Your task to perform on an android device: open app "Messages" (install if not already installed) and go to login screen Image 0: 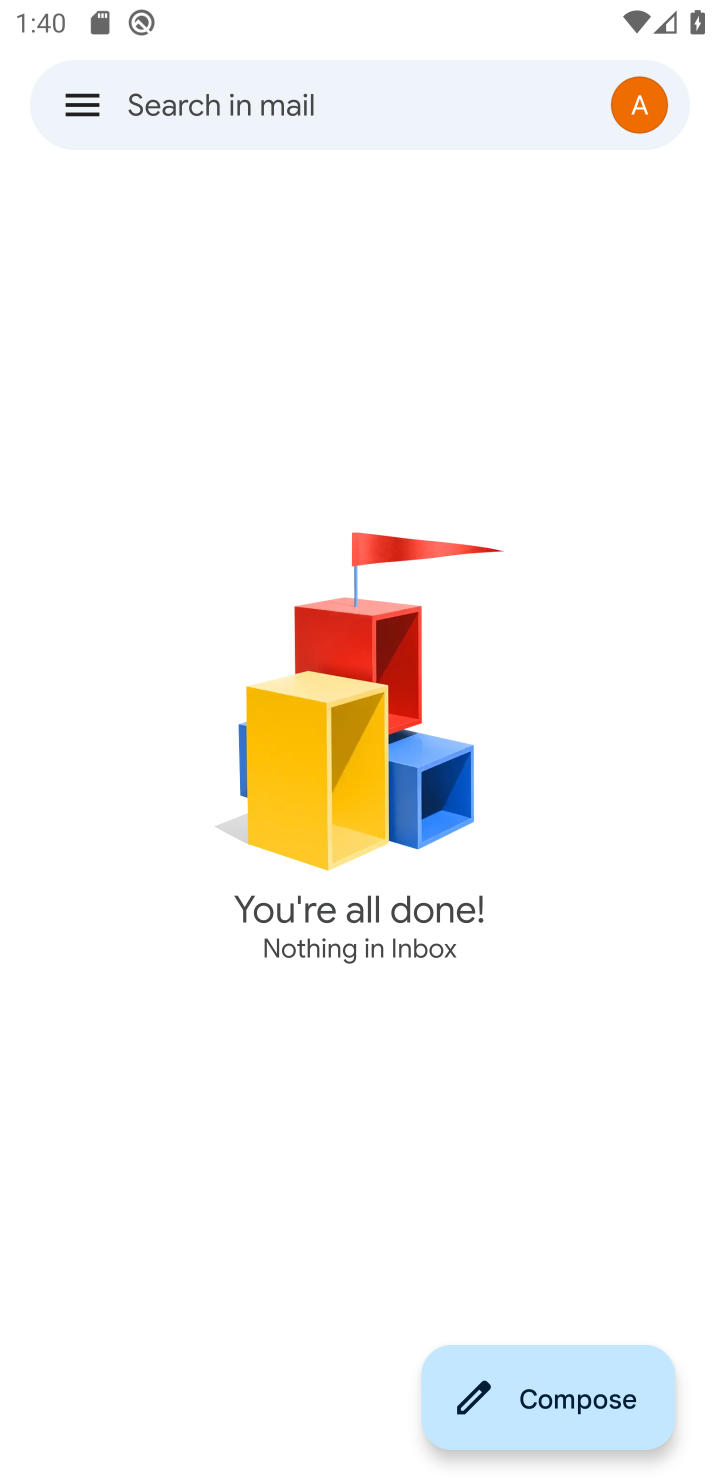
Step 0: press home button
Your task to perform on an android device: open app "Messages" (install if not already installed) and go to login screen Image 1: 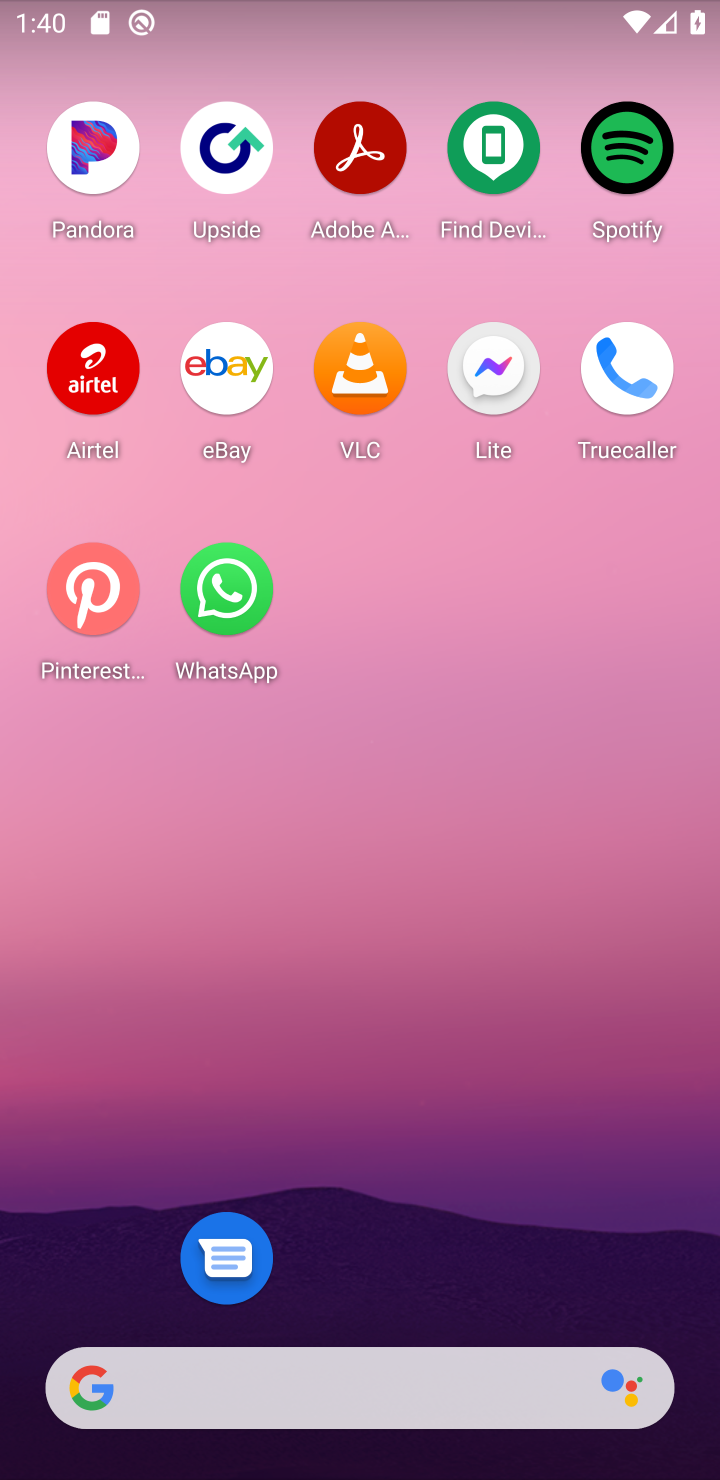
Step 1: drag from (409, 1317) to (412, 572)
Your task to perform on an android device: open app "Messages" (install if not already installed) and go to login screen Image 2: 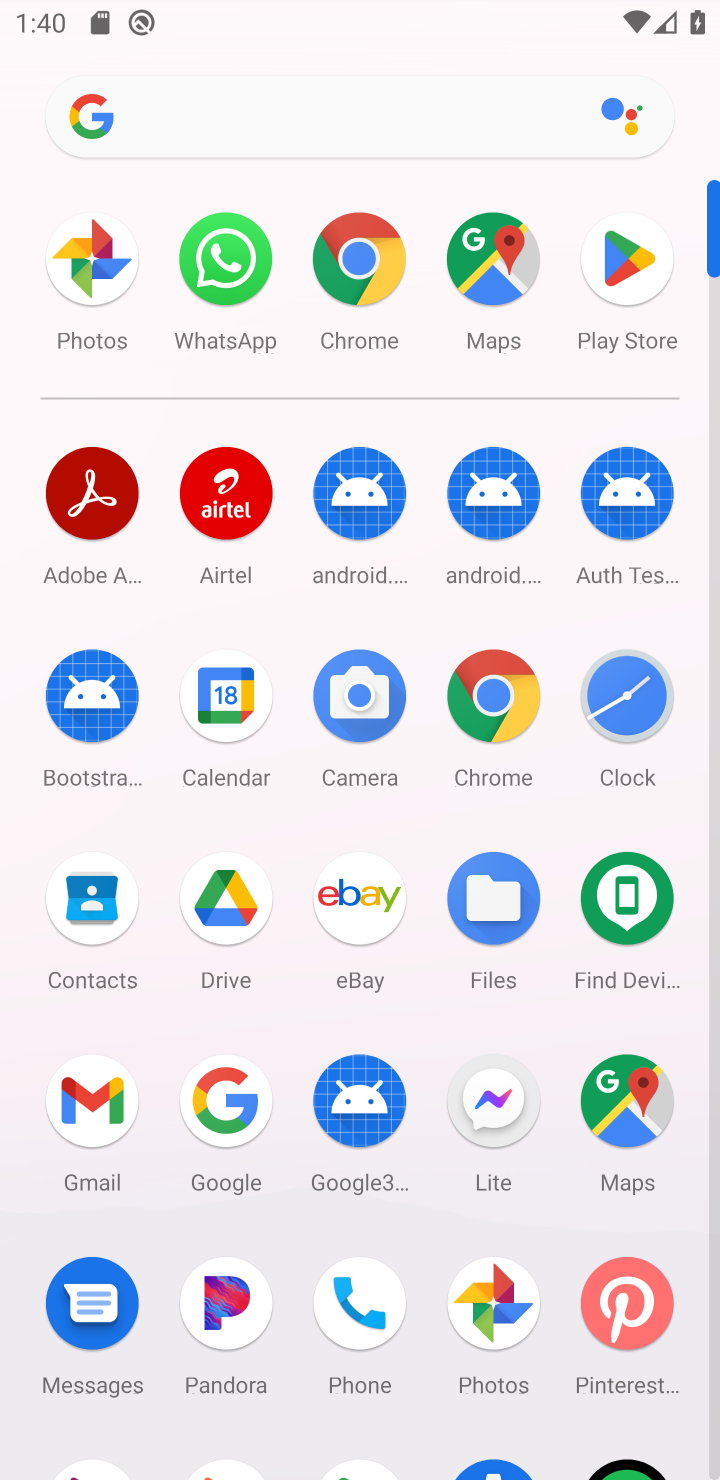
Step 2: click (633, 276)
Your task to perform on an android device: open app "Messages" (install if not already installed) and go to login screen Image 3: 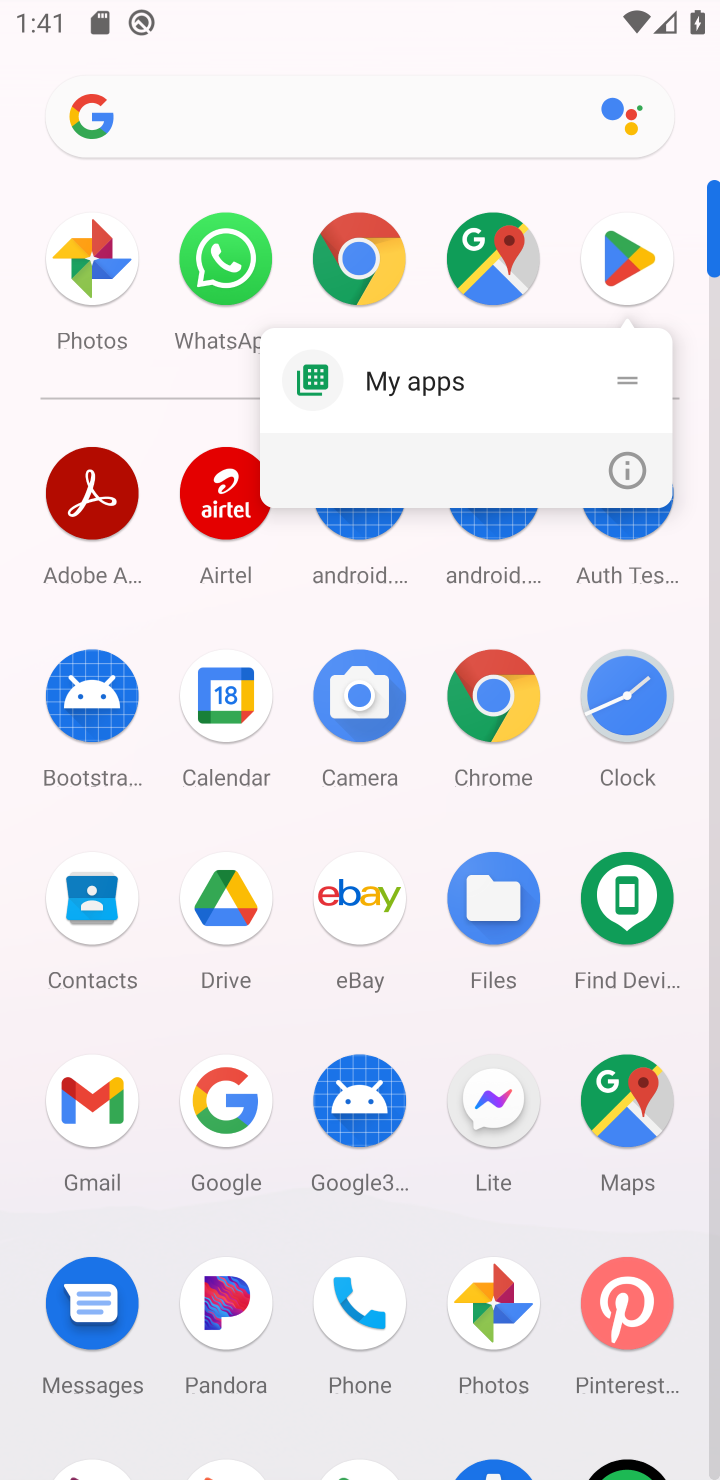
Step 3: click (625, 255)
Your task to perform on an android device: open app "Messages" (install if not already installed) and go to login screen Image 4: 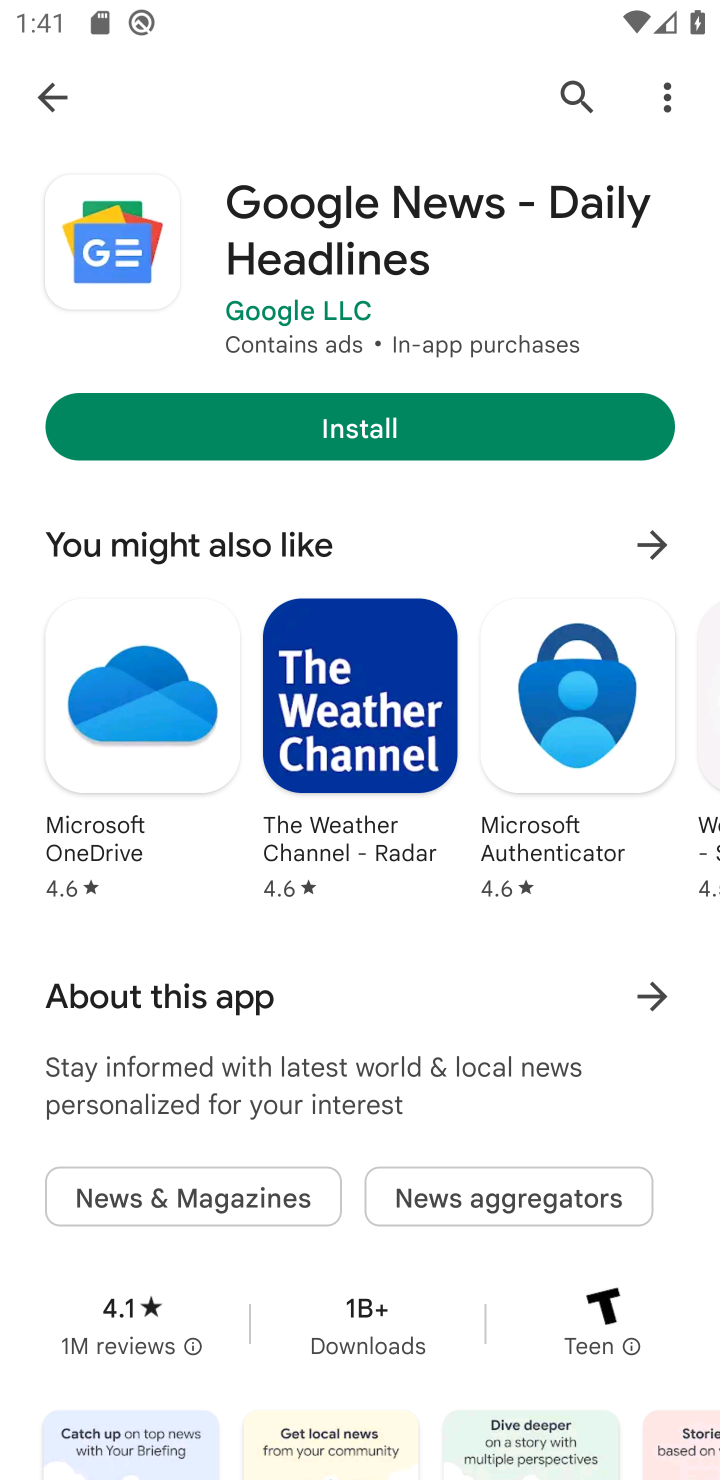
Step 4: click (54, 94)
Your task to perform on an android device: open app "Messages" (install if not already installed) and go to login screen Image 5: 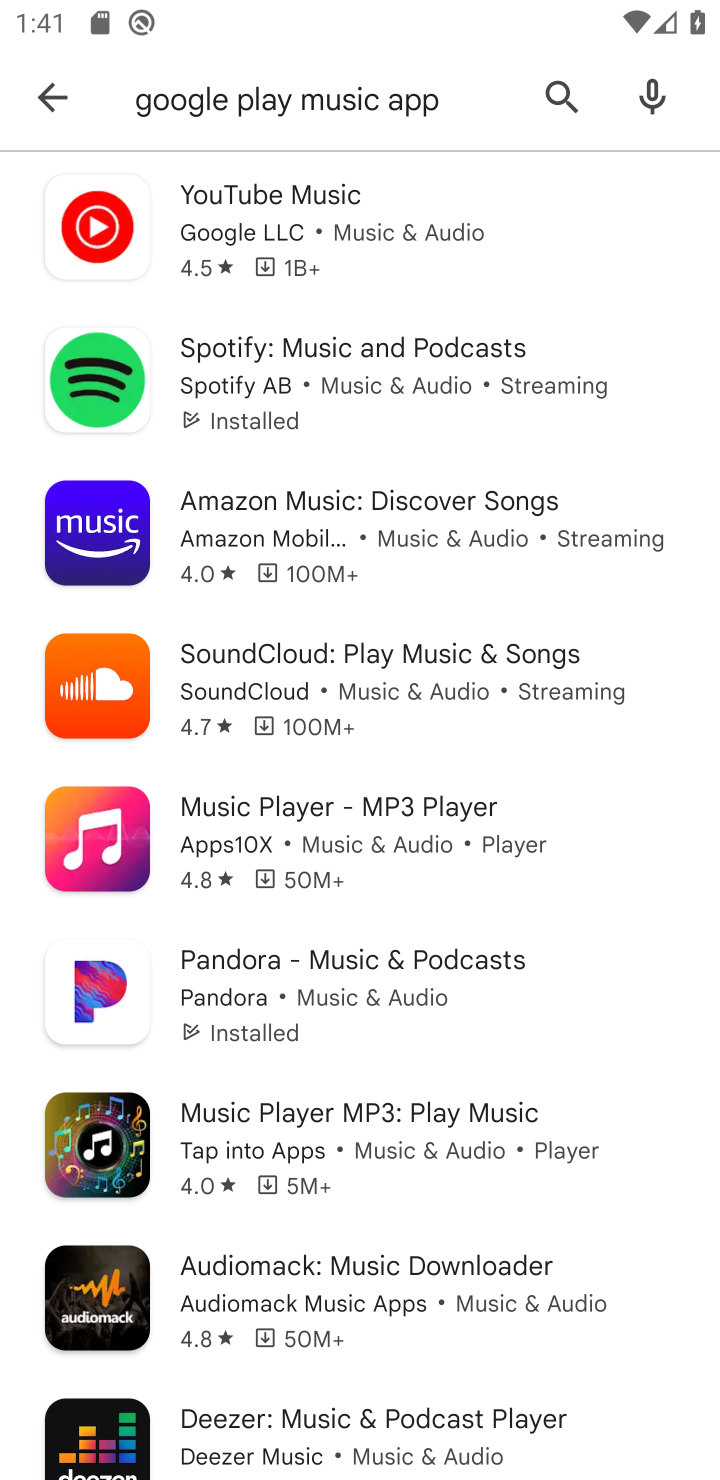
Step 5: click (547, 100)
Your task to perform on an android device: open app "Messages" (install if not already installed) and go to login screen Image 6: 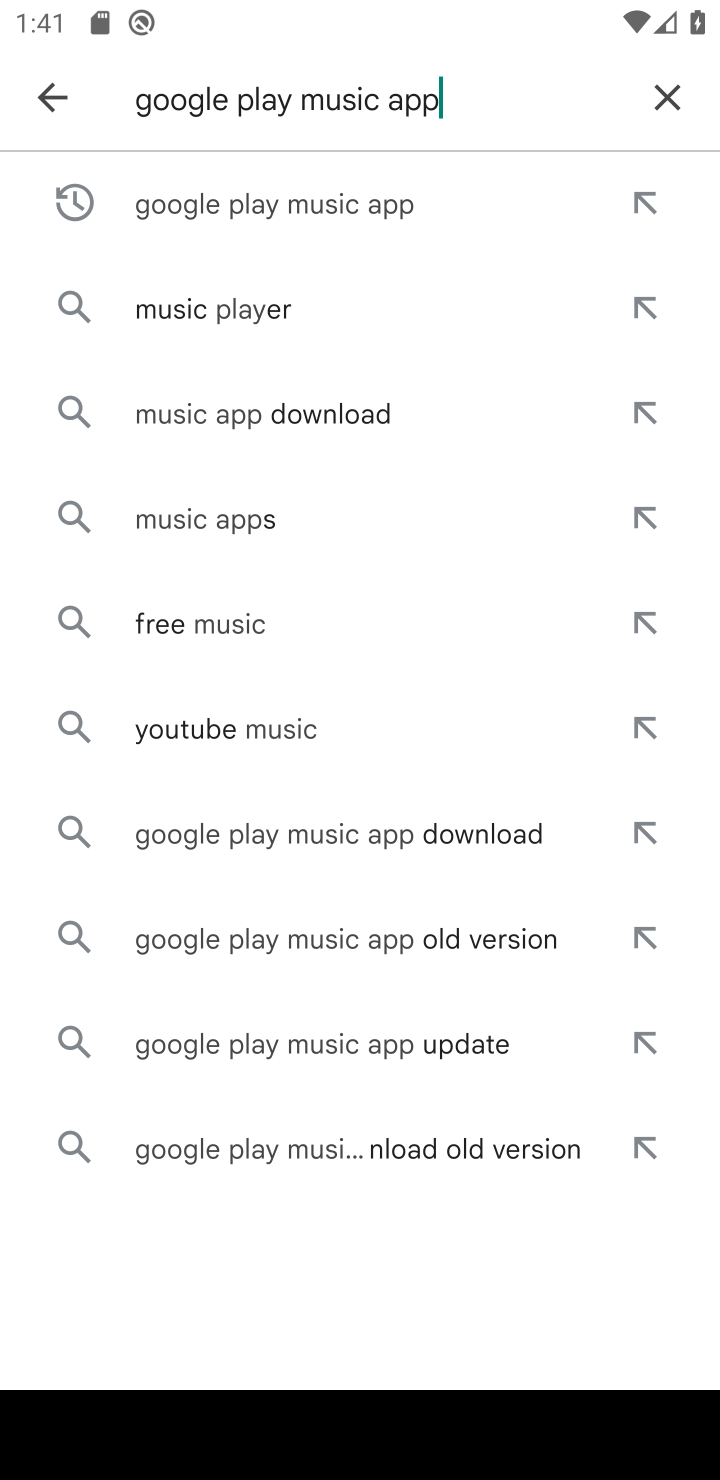
Step 6: click (618, 85)
Your task to perform on an android device: open app "Messages" (install if not already installed) and go to login screen Image 7: 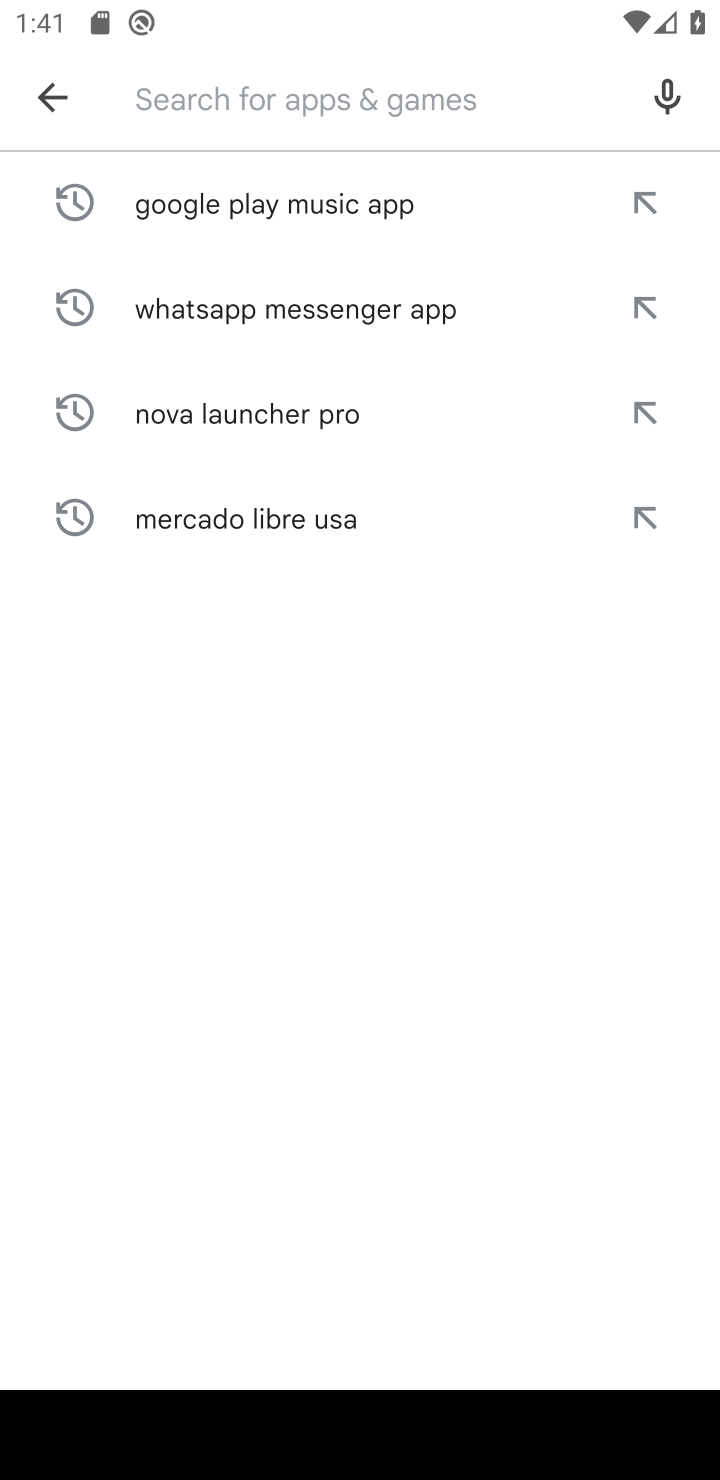
Step 7: click (267, 96)
Your task to perform on an android device: open app "Messages" (install if not already installed) and go to login screen Image 8: 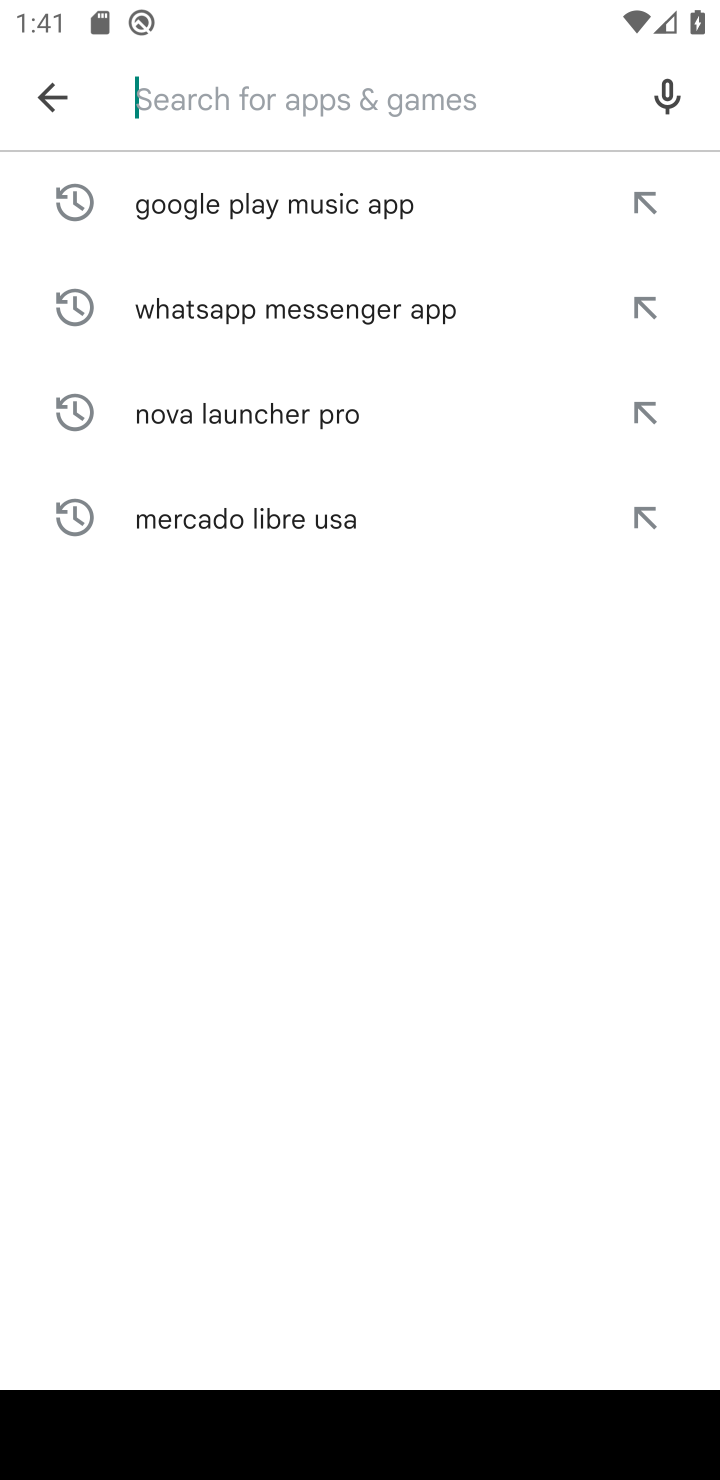
Step 8: type "Messages "
Your task to perform on an android device: open app "Messages" (install if not already installed) and go to login screen Image 9: 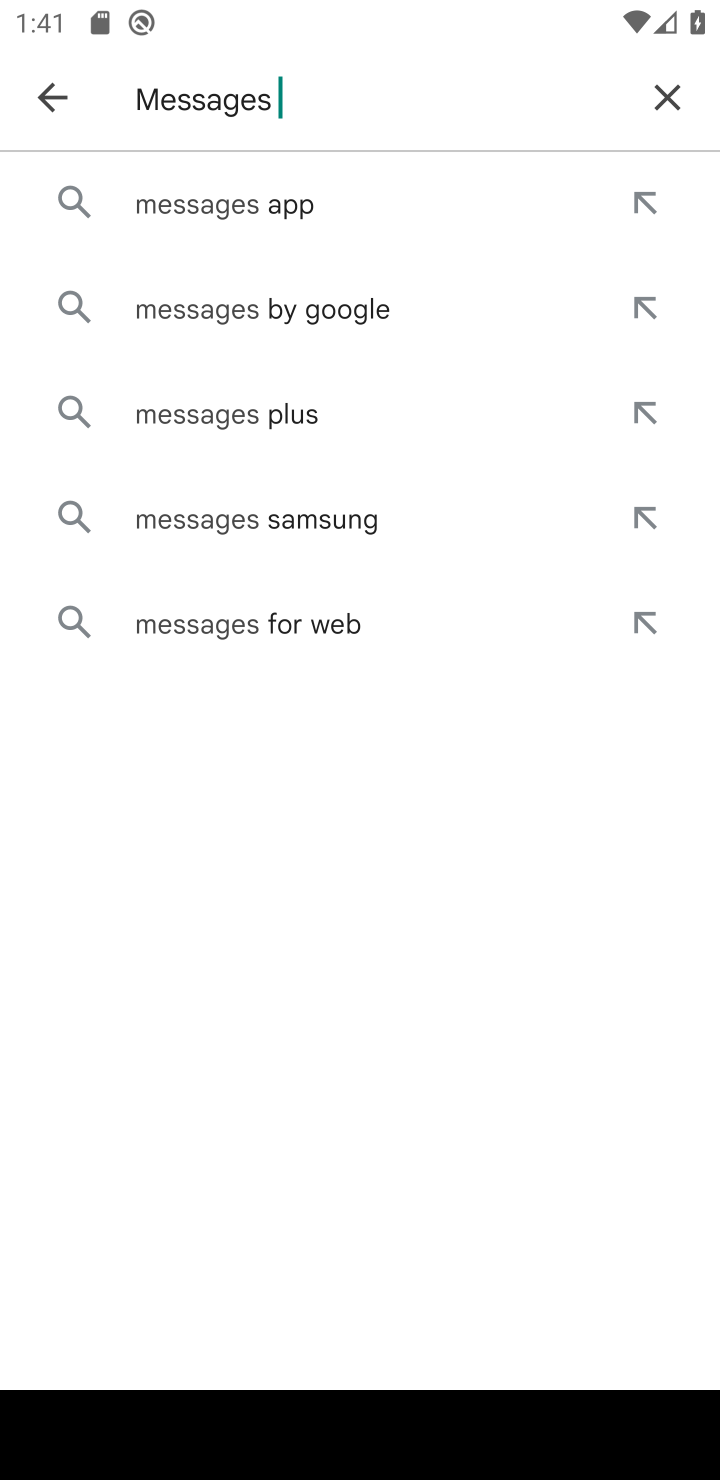
Step 9: click (172, 222)
Your task to perform on an android device: open app "Messages" (install if not already installed) and go to login screen Image 10: 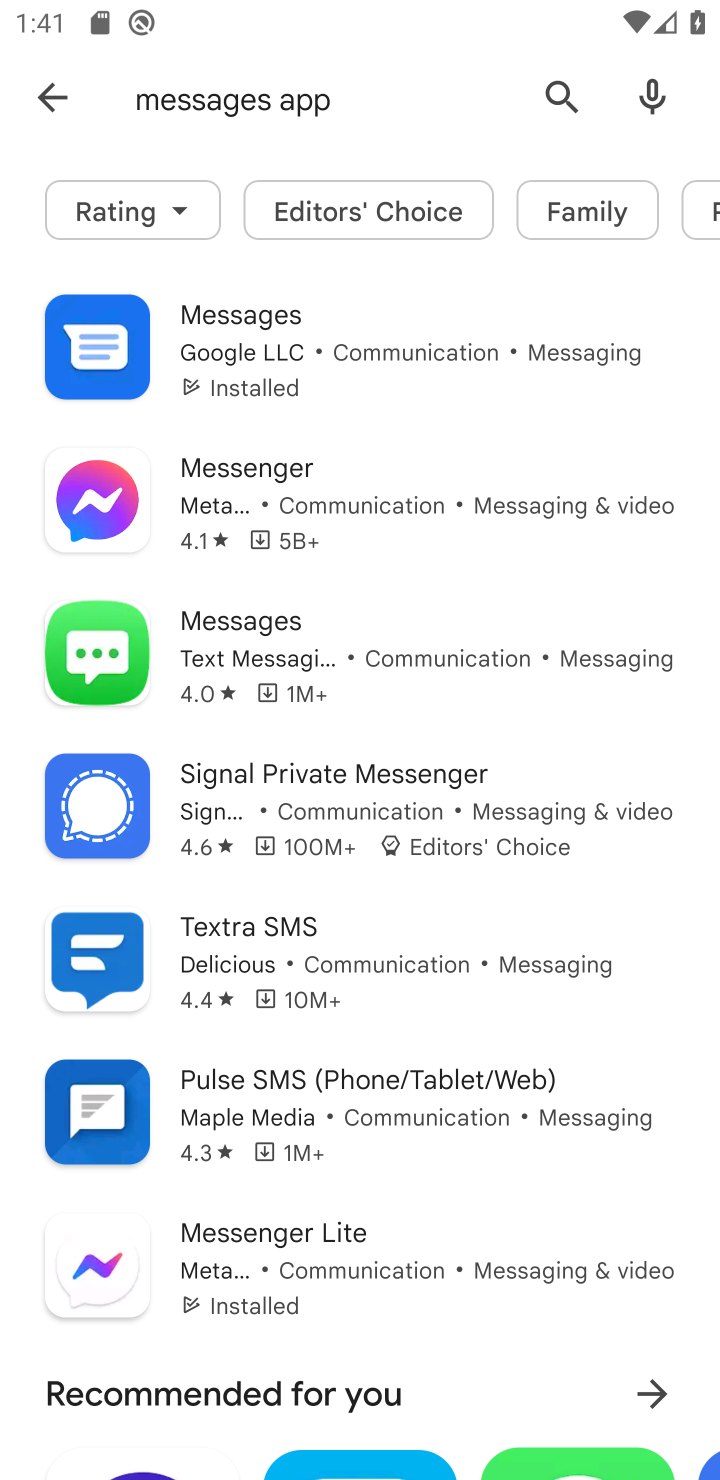
Step 10: click (274, 340)
Your task to perform on an android device: open app "Messages" (install if not already installed) and go to login screen Image 11: 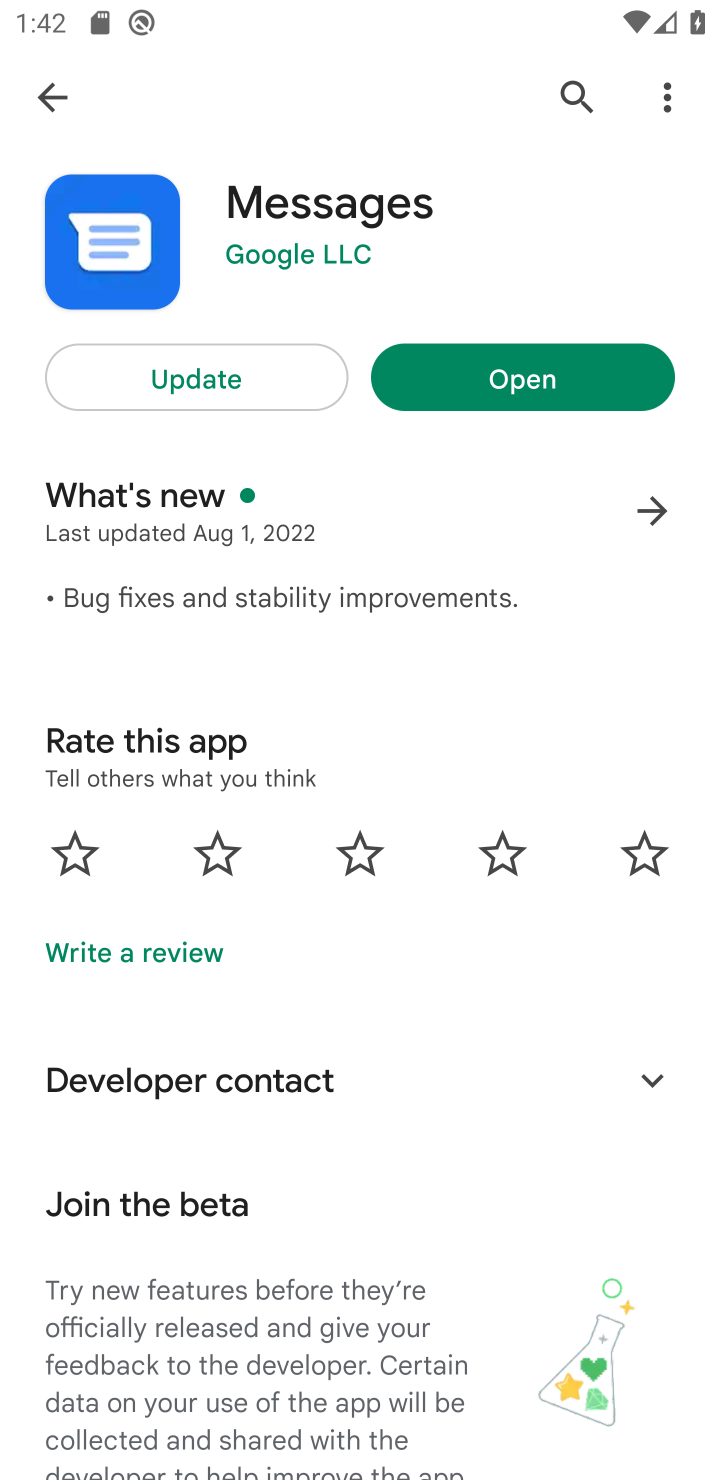
Step 11: click (468, 384)
Your task to perform on an android device: open app "Messages" (install if not already installed) and go to login screen Image 12: 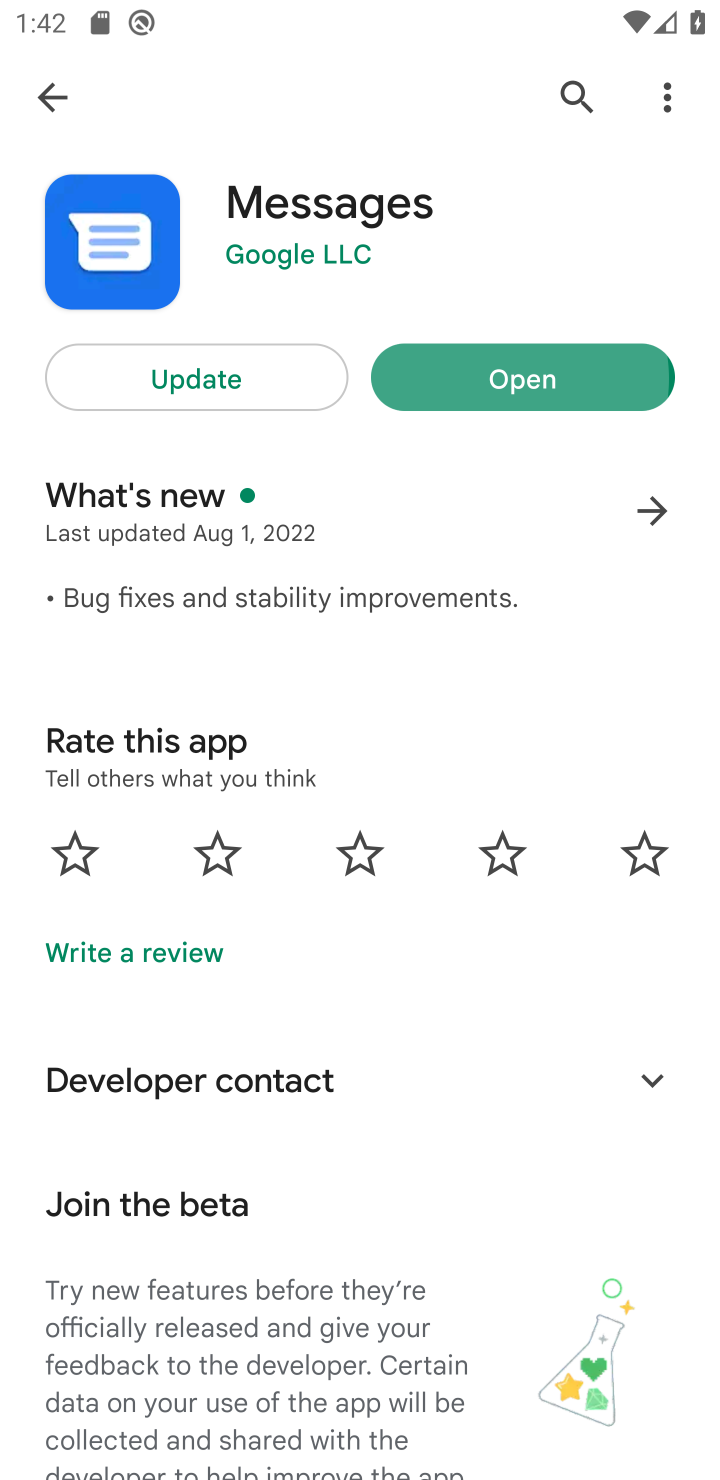
Step 12: task complete